Your task to perform on an android device: uninstall "Fetch Rewards" Image 0: 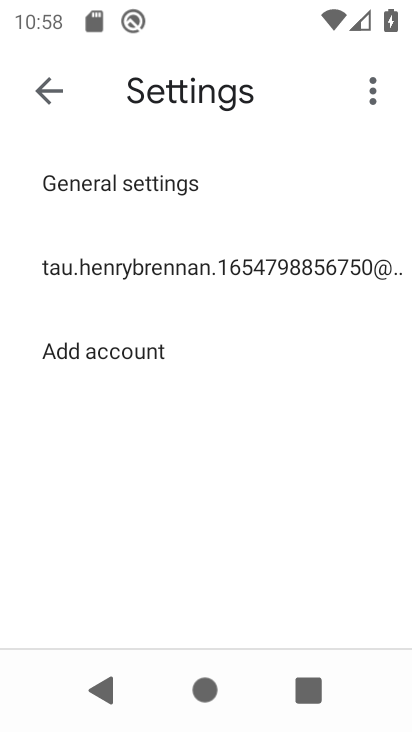
Step 0: press home button
Your task to perform on an android device: uninstall "Fetch Rewards" Image 1: 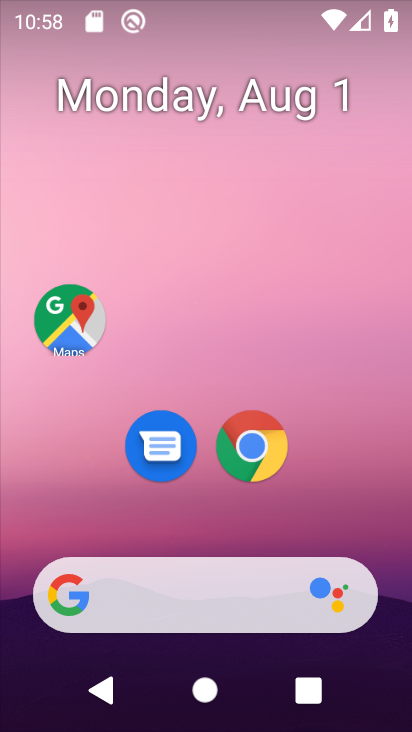
Step 1: drag from (207, 522) to (205, 76)
Your task to perform on an android device: uninstall "Fetch Rewards" Image 2: 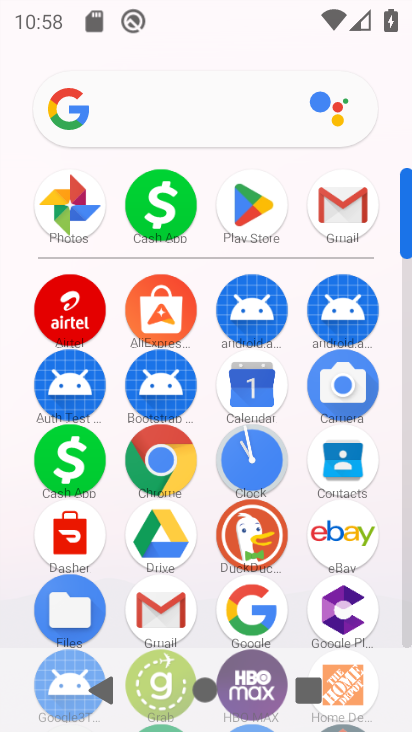
Step 2: click (250, 227)
Your task to perform on an android device: uninstall "Fetch Rewards" Image 3: 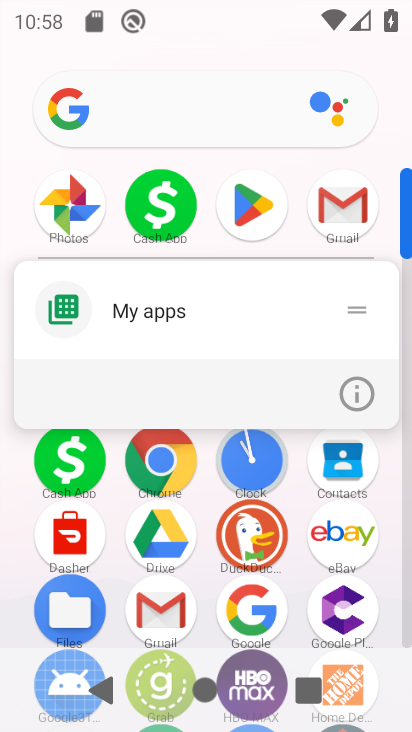
Step 3: click (262, 196)
Your task to perform on an android device: uninstall "Fetch Rewards" Image 4: 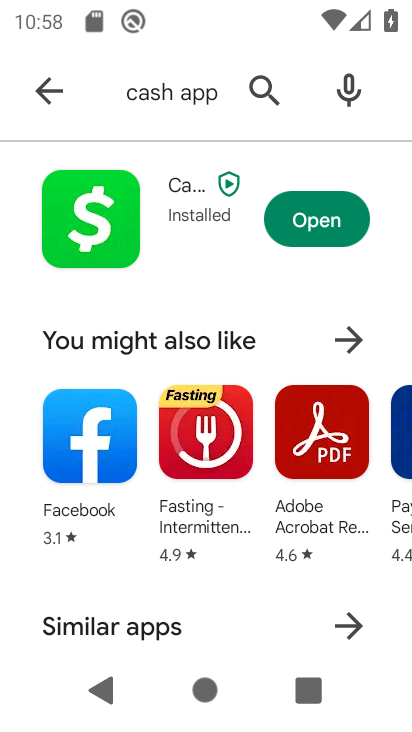
Step 4: click (248, 97)
Your task to perform on an android device: uninstall "Fetch Rewards" Image 5: 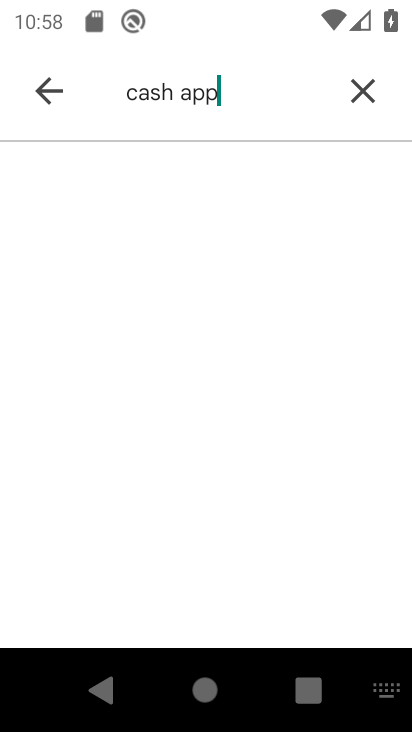
Step 5: click (363, 96)
Your task to perform on an android device: uninstall "Fetch Rewards" Image 6: 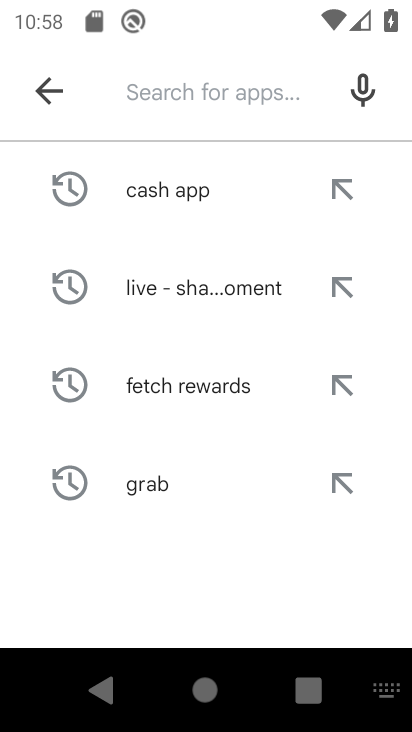
Step 6: type "Fetch Rewards"
Your task to perform on an android device: uninstall "Fetch Rewards" Image 7: 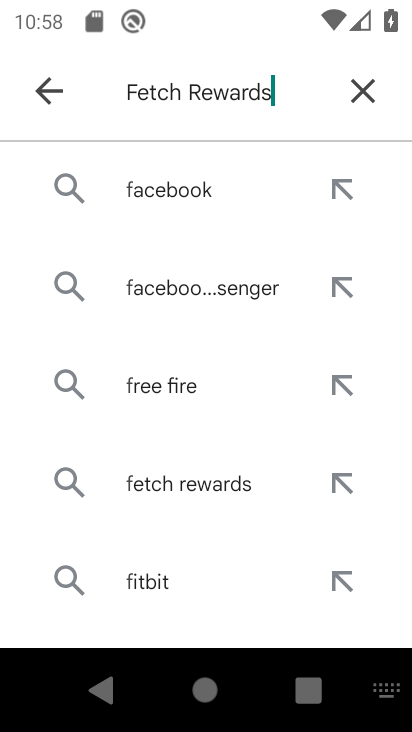
Step 7: type ""
Your task to perform on an android device: uninstall "Fetch Rewards" Image 8: 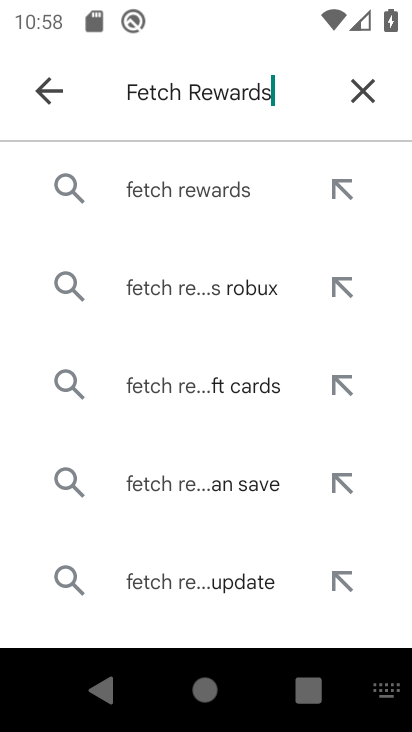
Step 8: click (230, 197)
Your task to perform on an android device: uninstall "Fetch Rewards" Image 9: 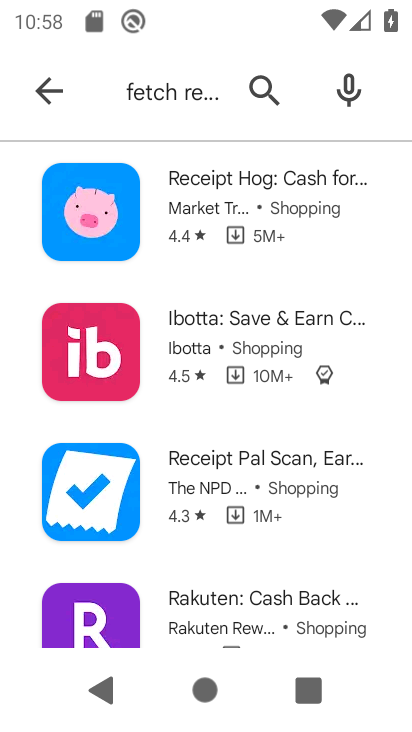
Step 9: task complete